Your task to perform on an android device: delete the emails in spam in the gmail app Image 0: 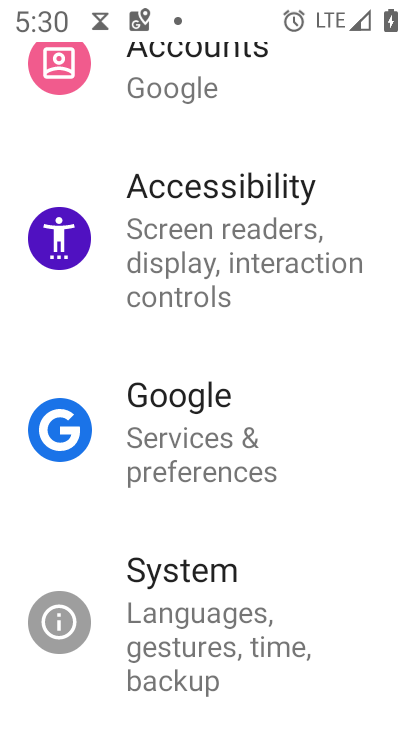
Step 0: press home button
Your task to perform on an android device: delete the emails in spam in the gmail app Image 1: 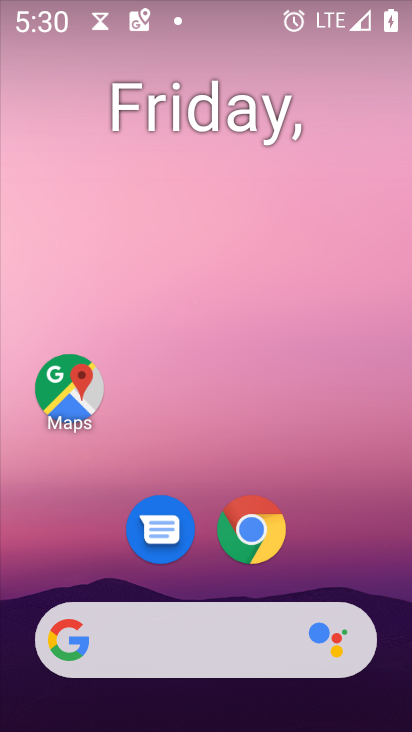
Step 1: drag from (349, 552) to (221, 7)
Your task to perform on an android device: delete the emails in spam in the gmail app Image 2: 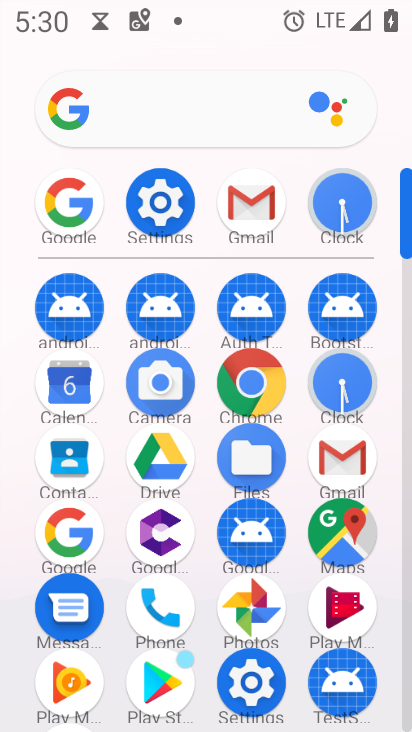
Step 2: click (334, 448)
Your task to perform on an android device: delete the emails in spam in the gmail app Image 3: 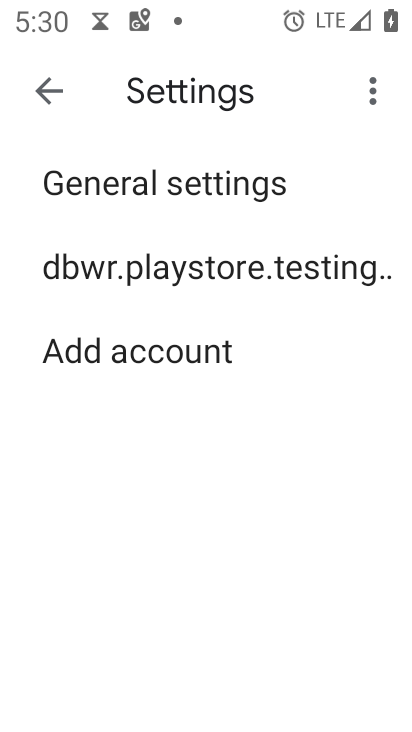
Step 3: click (47, 89)
Your task to perform on an android device: delete the emails in spam in the gmail app Image 4: 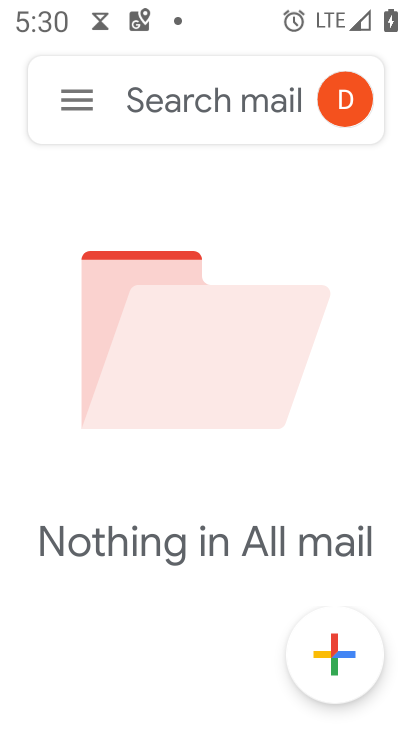
Step 4: click (69, 89)
Your task to perform on an android device: delete the emails in spam in the gmail app Image 5: 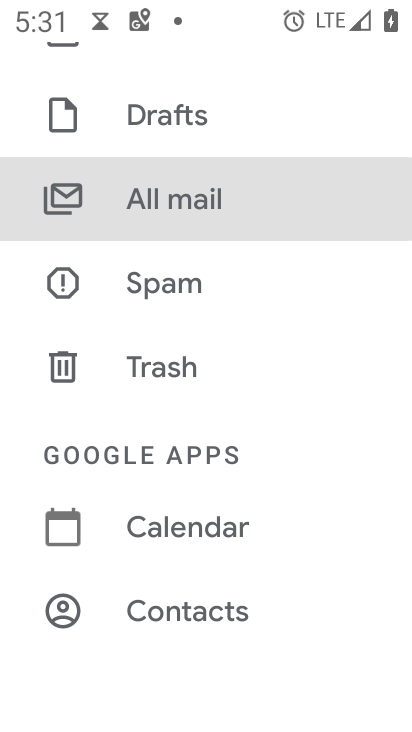
Step 5: click (199, 292)
Your task to perform on an android device: delete the emails in spam in the gmail app Image 6: 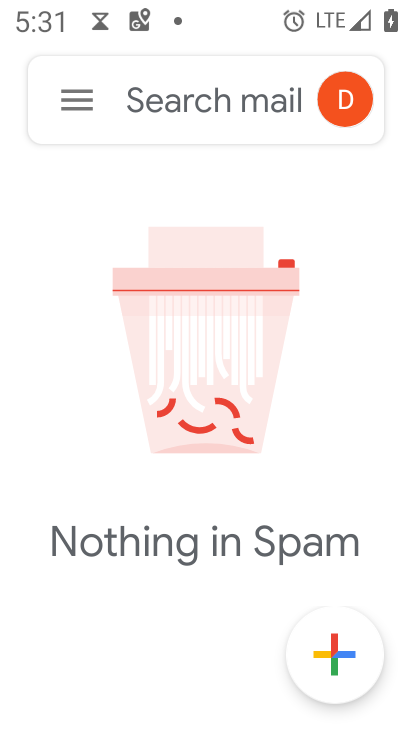
Step 6: task complete